Your task to perform on an android device: all mails in gmail Image 0: 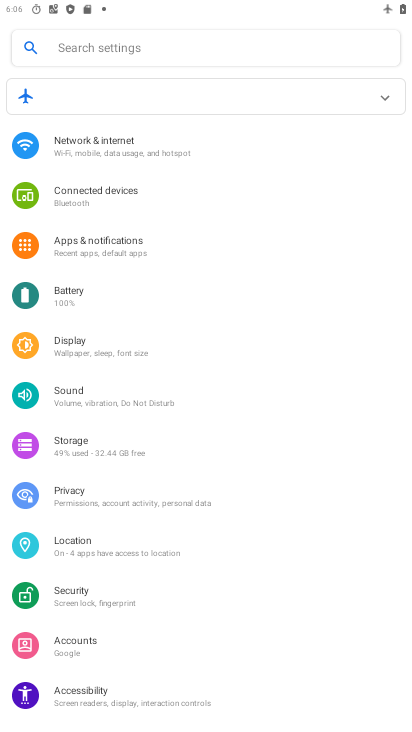
Step 0: press home button
Your task to perform on an android device: all mails in gmail Image 1: 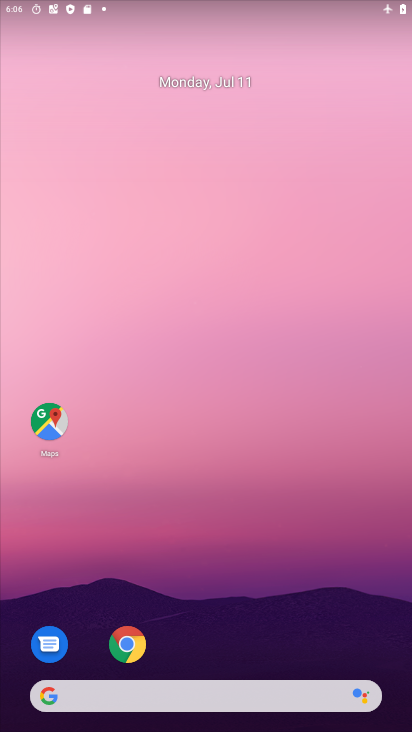
Step 1: drag from (165, 641) to (219, 0)
Your task to perform on an android device: all mails in gmail Image 2: 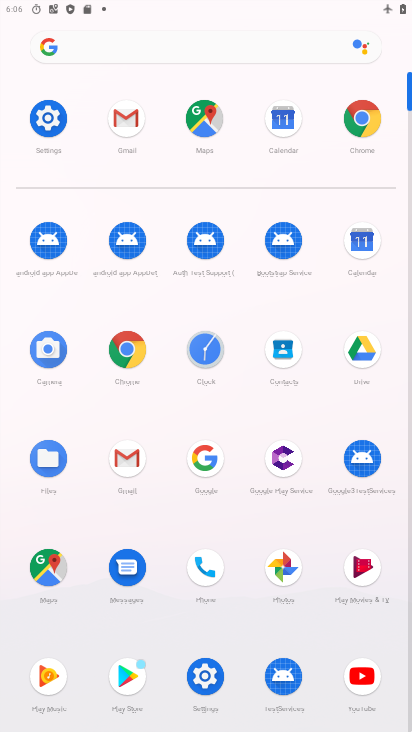
Step 2: click (123, 478)
Your task to perform on an android device: all mails in gmail Image 3: 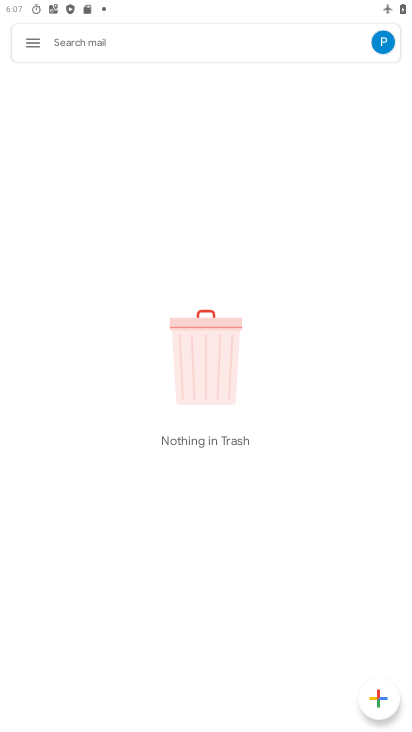
Step 3: click (39, 48)
Your task to perform on an android device: all mails in gmail Image 4: 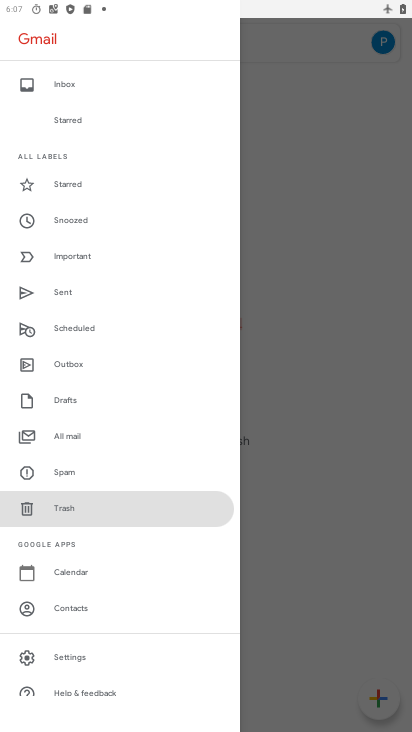
Step 4: click (69, 432)
Your task to perform on an android device: all mails in gmail Image 5: 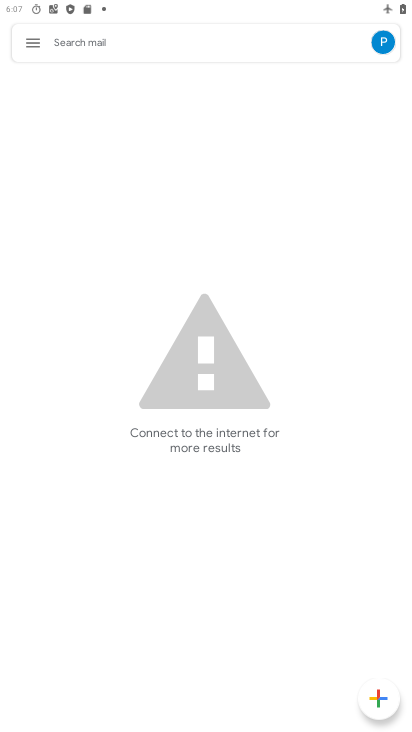
Step 5: task complete